Your task to perform on an android device: turn off notifications in google photos Image 0: 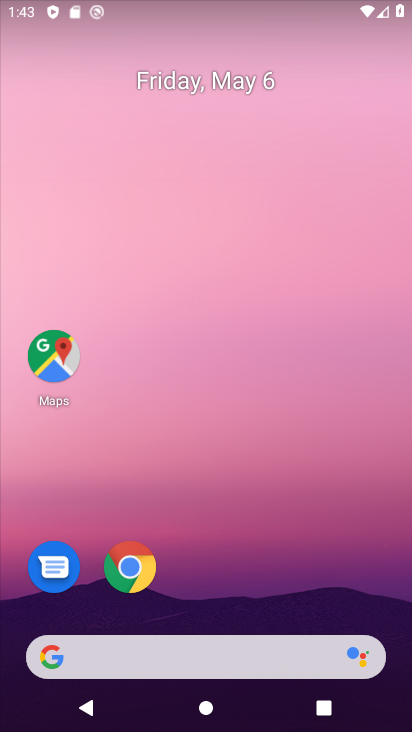
Step 0: drag from (354, 608) to (312, 28)
Your task to perform on an android device: turn off notifications in google photos Image 1: 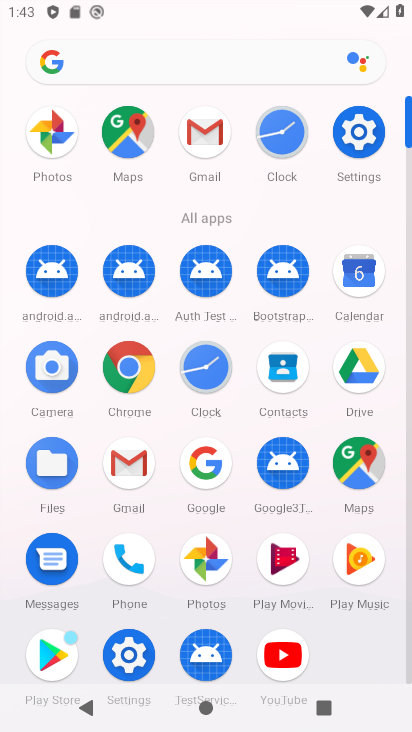
Step 1: click (208, 556)
Your task to perform on an android device: turn off notifications in google photos Image 2: 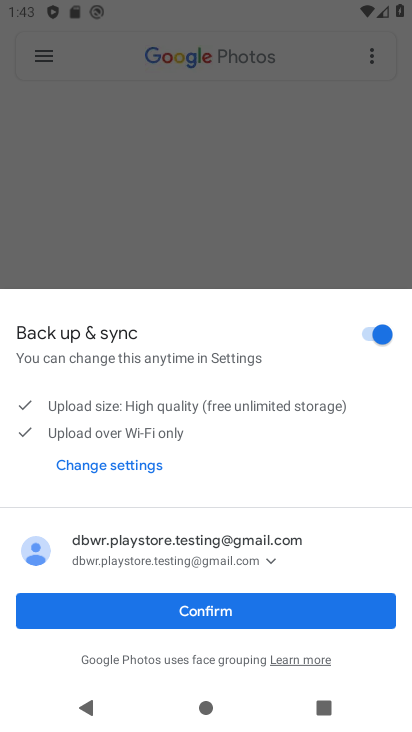
Step 2: click (199, 613)
Your task to perform on an android device: turn off notifications in google photos Image 3: 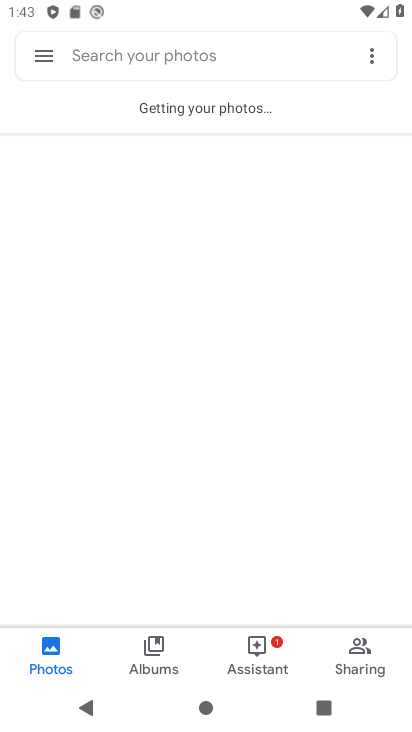
Step 3: click (43, 55)
Your task to perform on an android device: turn off notifications in google photos Image 4: 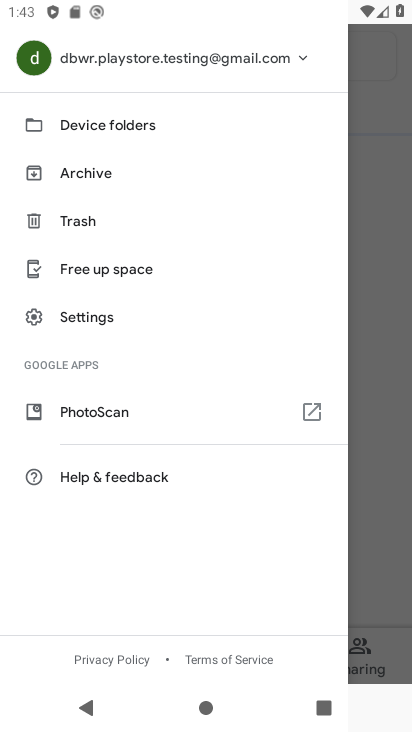
Step 4: click (87, 311)
Your task to perform on an android device: turn off notifications in google photos Image 5: 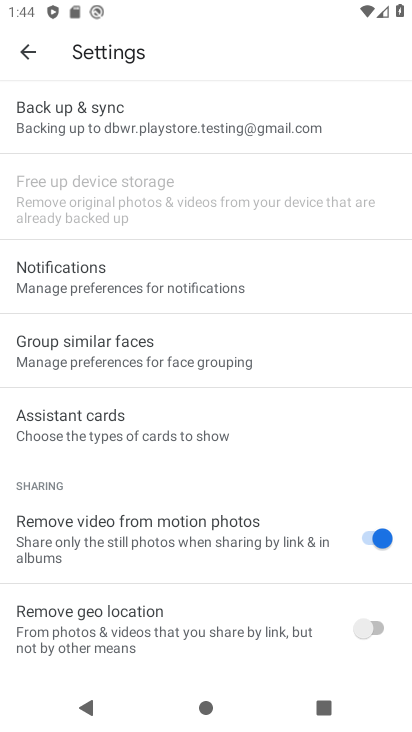
Step 5: click (136, 286)
Your task to perform on an android device: turn off notifications in google photos Image 6: 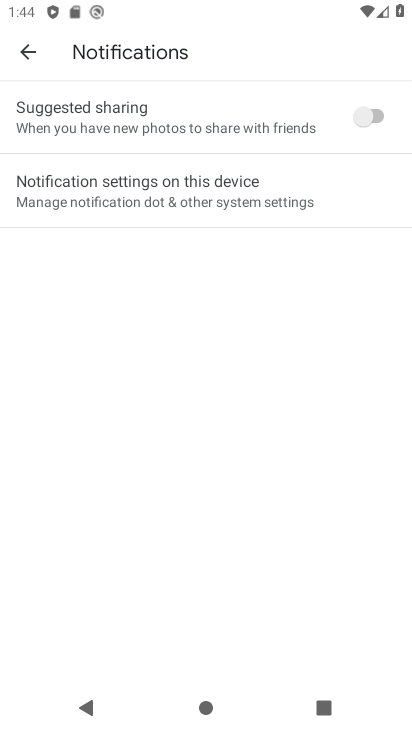
Step 6: click (198, 183)
Your task to perform on an android device: turn off notifications in google photos Image 7: 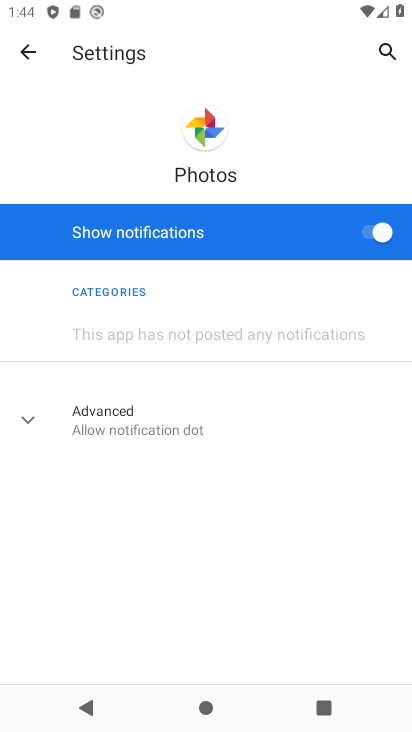
Step 7: click (371, 232)
Your task to perform on an android device: turn off notifications in google photos Image 8: 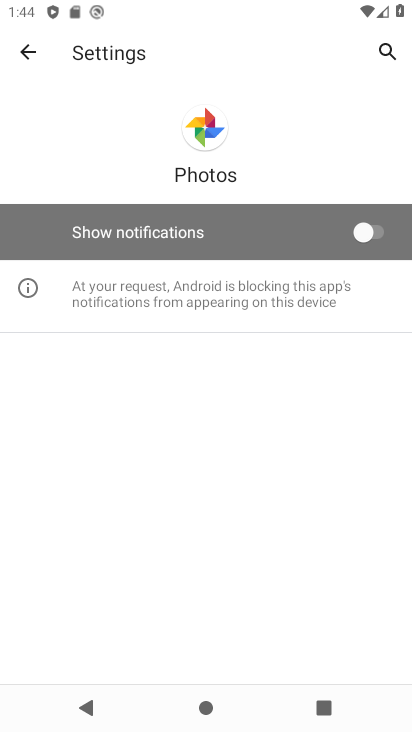
Step 8: task complete